Your task to perform on an android device: Show me some nice wallpapers for my computer Image 0: 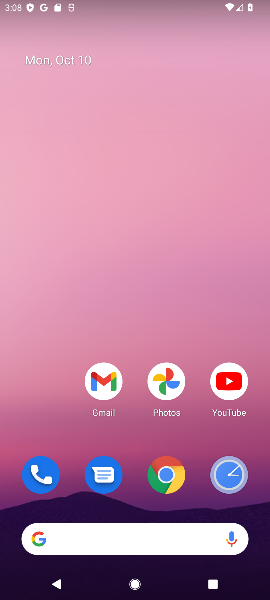
Step 0: drag from (134, 467) to (134, 153)
Your task to perform on an android device: Show me some nice wallpapers for my computer Image 1: 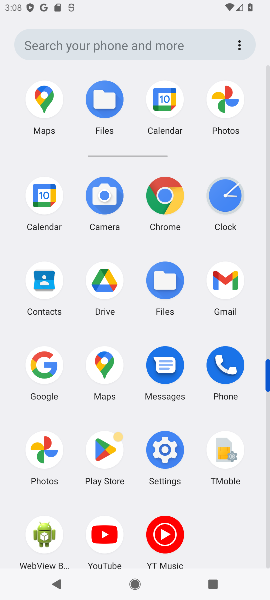
Step 1: click (93, 109)
Your task to perform on an android device: Show me some nice wallpapers for my computer Image 2: 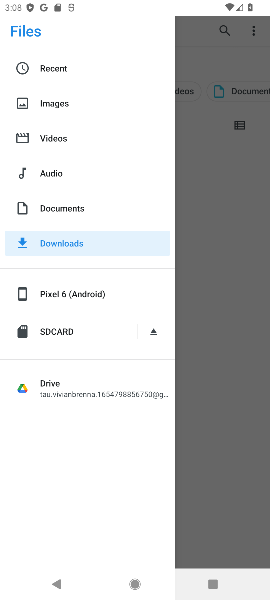
Step 2: click (75, 107)
Your task to perform on an android device: Show me some nice wallpapers for my computer Image 3: 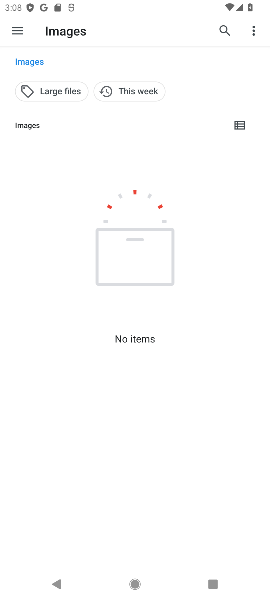
Step 3: press home button
Your task to perform on an android device: Show me some nice wallpapers for my computer Image 4: 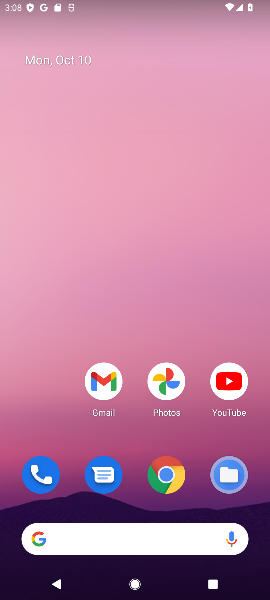
Step 4: click (131, 284)
Your task to perform on an android device: Show me some nice wallpapers for my computer Image 5: 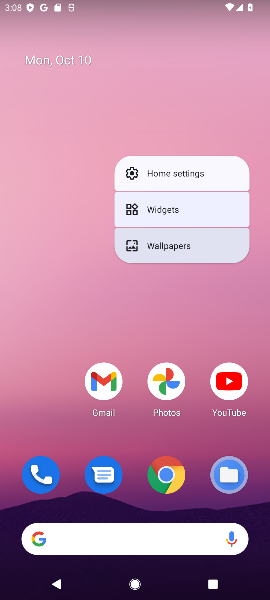
Step 5: click (178, 239)
Your task to perform on an android device: Show me some nice wallpapers for my computer Image 6: 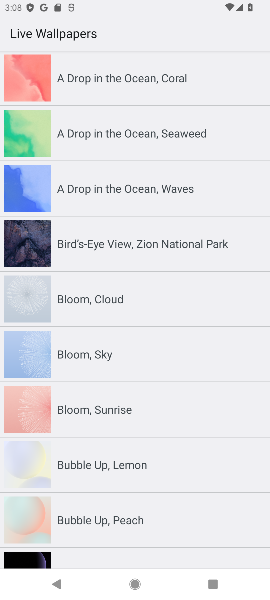
Step 6: task complete